Your task to perform on an android device: When is my next meeting? Image 0: 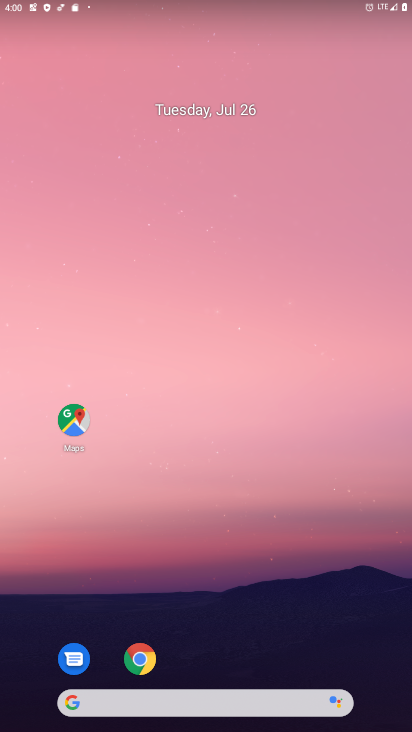
Step 0: press home button
Your task to perform on an android device: When is my next meeting? Image 1: 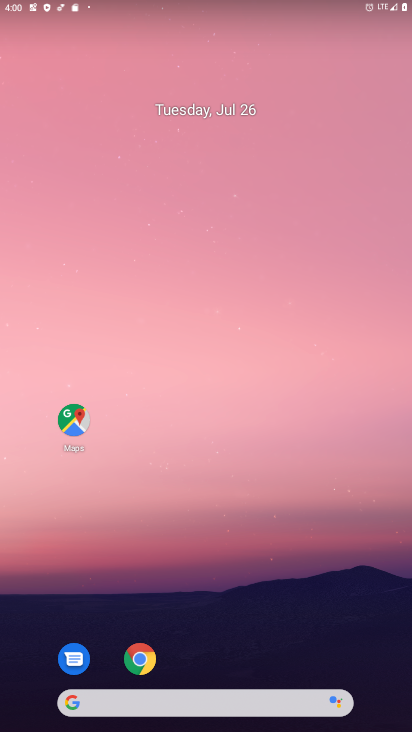
Step 1: click (74, 691)
Your task to perform on an android device: When is my next meeting? Image 2: 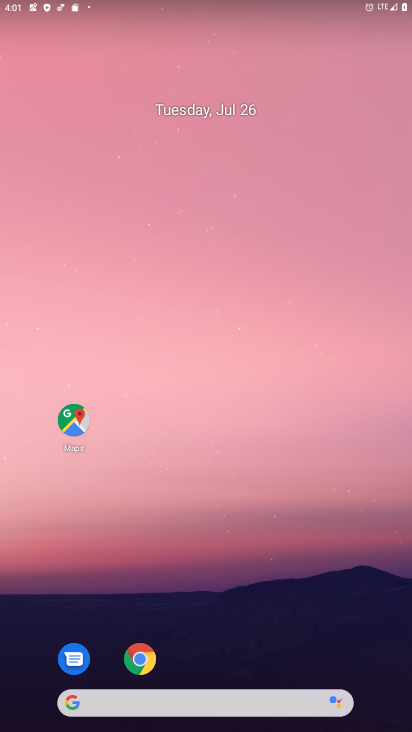
Step 2: drag from (202, 660) to (258, 0)
Your task to perform on an android device: When is my next meeting? Image 3: 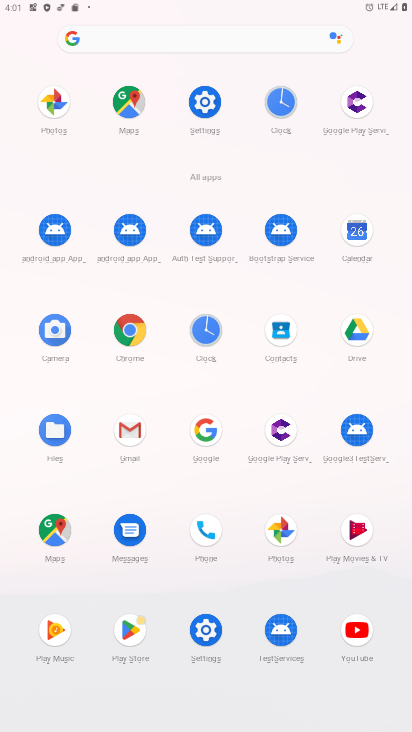
Step 3: click (363, 235)
Your task to perform on an android device: When is my next meeting? Image 4: 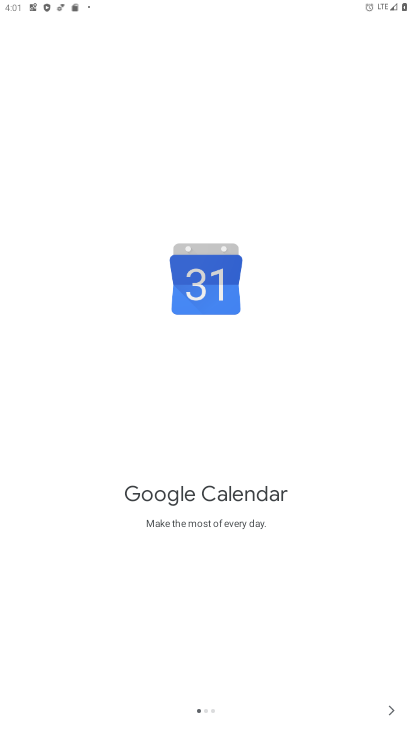
Step 4: click (392, 708)
Your task to perform on an android device: When is my next meeting? Image 5: 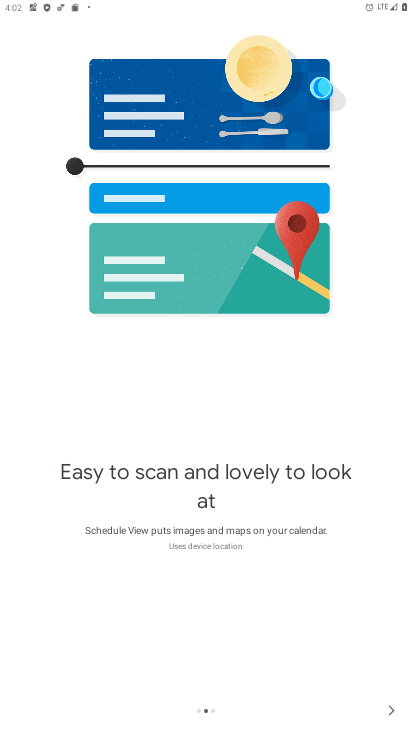
Step 5: click (391, 710)
Your task to perform on an android device: When is my next meeting? Image 6: 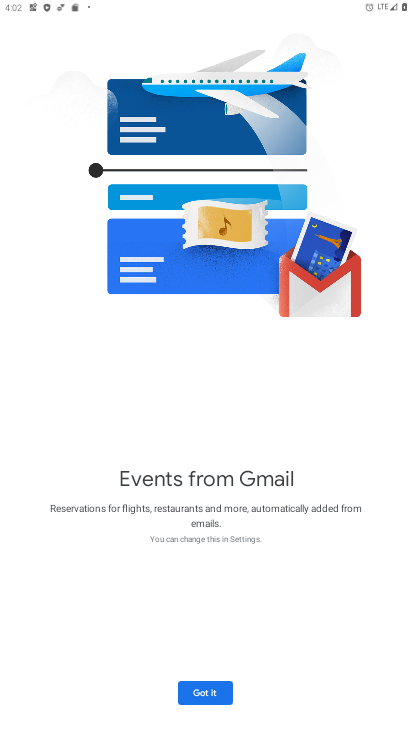
Step 6: click (199, 691)
Your task to perform on an android device: When is my next meeting? Image 7: 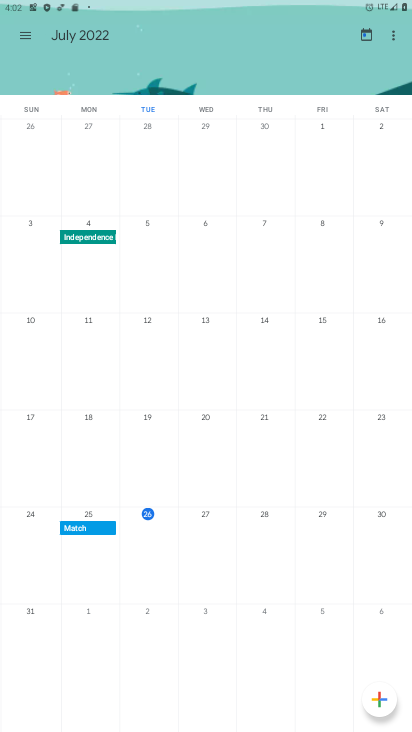
Step 7: click (29, 25)
Your task to perform on an android device: When is my next meeting? Image 8: 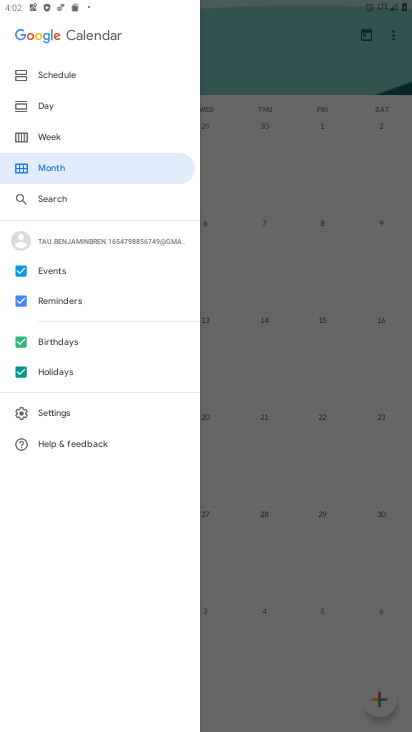
Step 8: click (59, 75)
Your task to perform on an android device: When is my next meeting? Image 9: 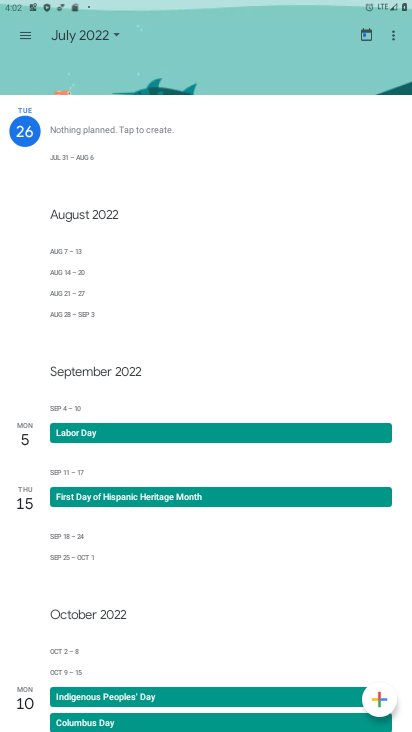
Step 9: task complete